Your task to perform on an android device: manage bookmarks in the chrome app Image 0: 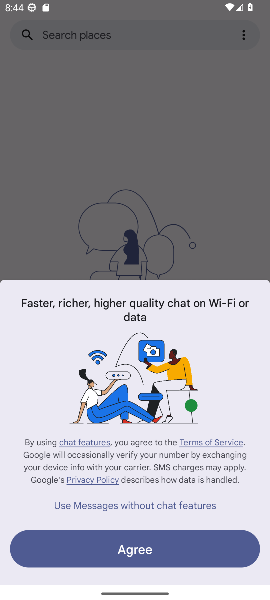
Step 0: press home button
Your task to perform on an android device: manage bookmarks in the chrome app Image 1: 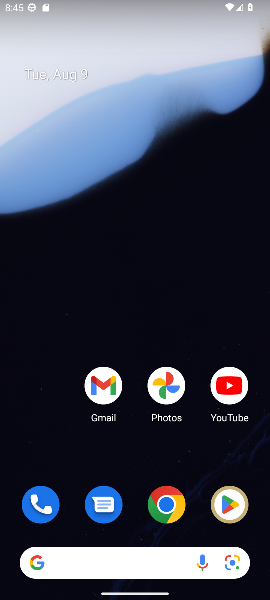
Step 1: click (166, 506)
Your task to perform on an android device: manage bookmarks in the chrome app Image 2: 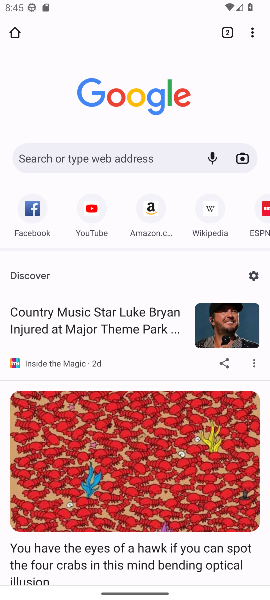
Step 2: click (250, 29)
Your task to perform on an android device: manage bookmarks in the chrome app Image 3: 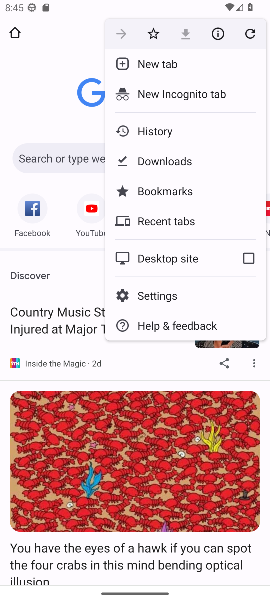
Step 3: click (165, 188)
Your task to perform on an android device: manage bookmarks in the chrome app Image 4: 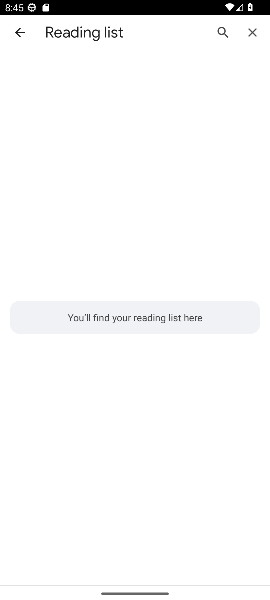
Step 4: task complete